Your task to perform on an android device: What's the weather? Image 0: 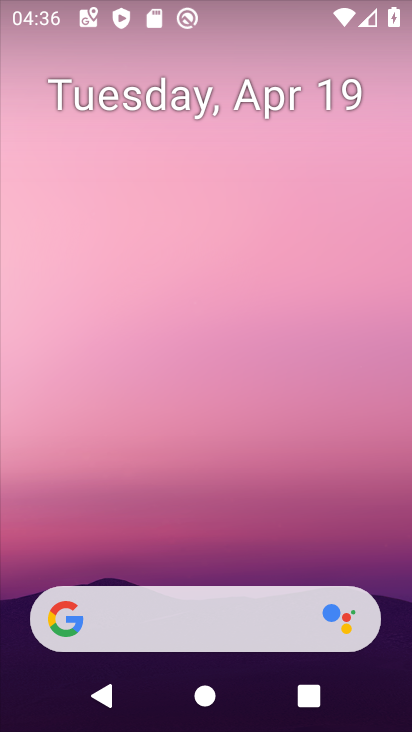
Step 0: drag from (168, 452) to (240, 109)
Your task to perform on an android device: What's the weather? Image 1: 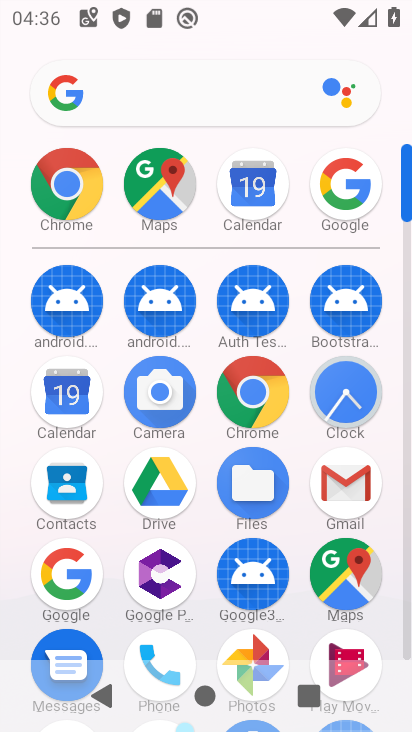
Step 1: click (54, 562)
Your task to perform on an android device: What's the weather? Image 2: 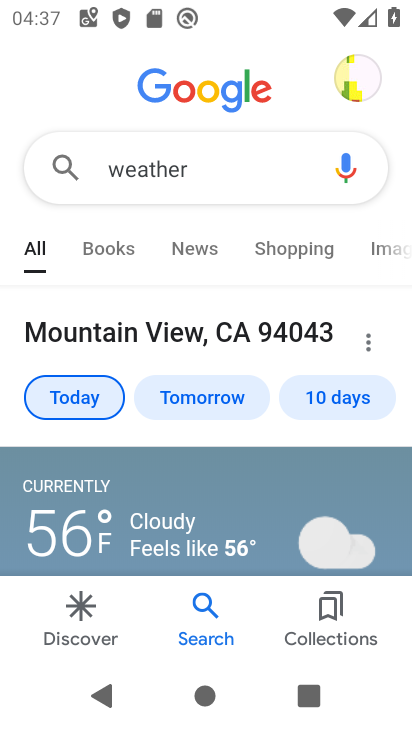
Step 2: task complete